Your task to perform on an android device: open the mobile data screen to see how much data has been used Image 0: 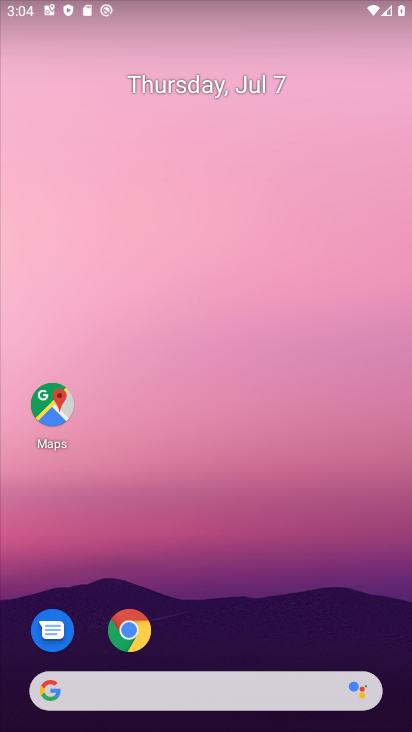
Step 0: drag from (230, 634) to (226, 174)
Your task to perform on an android device: open the mobile data screen to see how much data has been used Image 1: 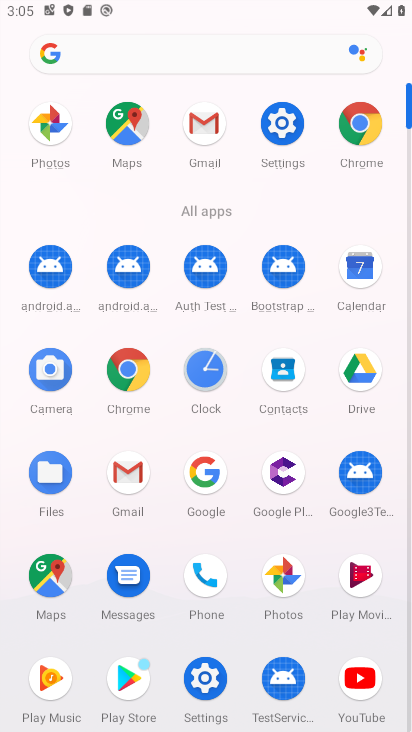
Step 1: click (135, 486)
Your task to perform on an android device: open the mobile data screen to see how much data has been used Image 2: 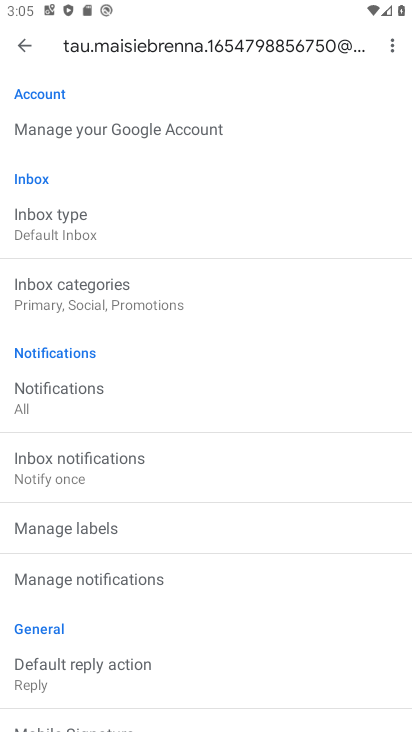
Step 2: press home button
Your task to perform on an android device: open the mobile data screen to see how much data has been used Image 3: 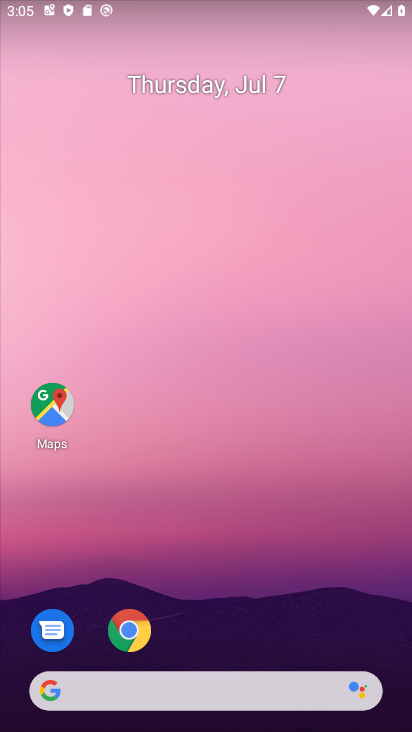
Step 3: drag from (252, 546) to (218, 38)
Your task to perform on an android device: open the mobile data screen to see how much data has been used Image 4: 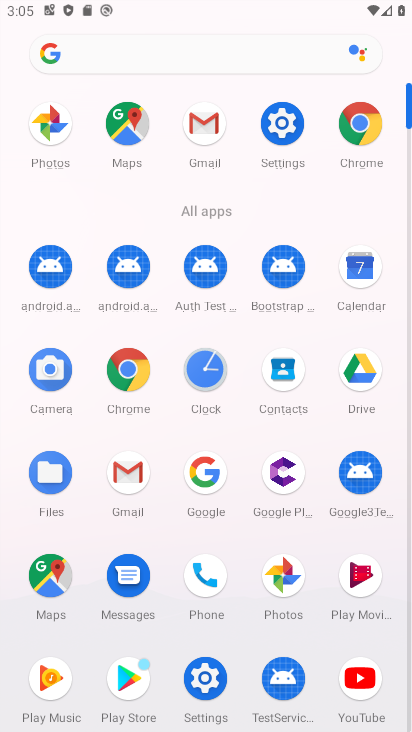
Step 4: click (129, 479)
Your task to perform on an android device: open the mobile data screen to see how much data has been used Image 5: 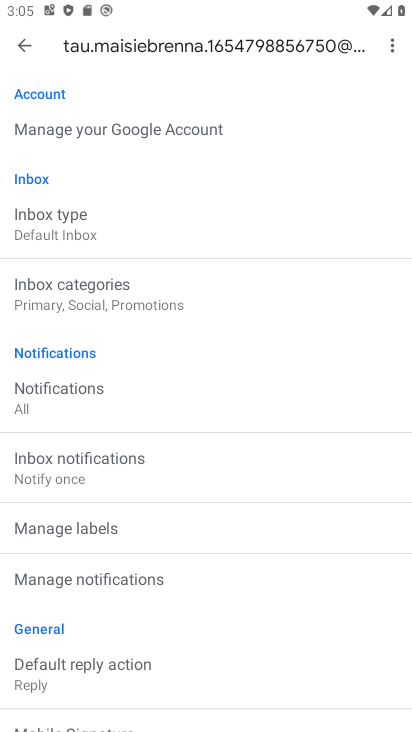
Step 5: task complete